Your task to perform on an android device: Search for Mexican restaurants on Maps Image 0: 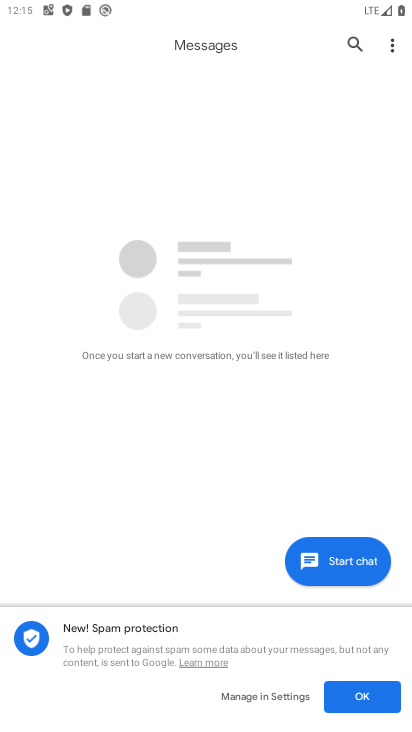
Step 0: press home button
Your task to perform on an android device: Search for Mexican restaurants on Maps Image 1: 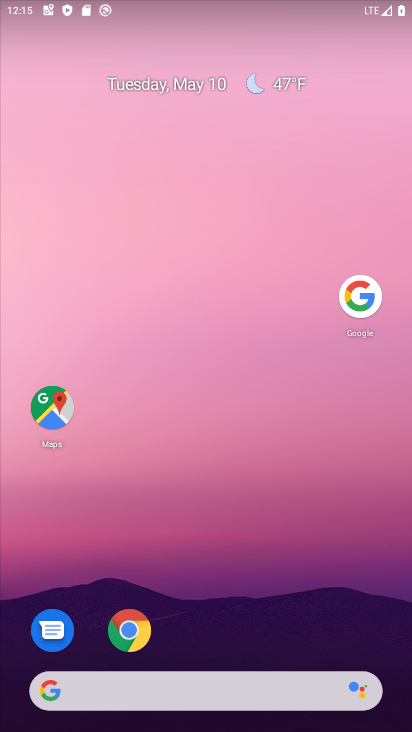
Step 1: drag from (203, 640) to (280, 75)
Your task to perform on an android device: Search for Mexican restaurants on Maps Image 2: 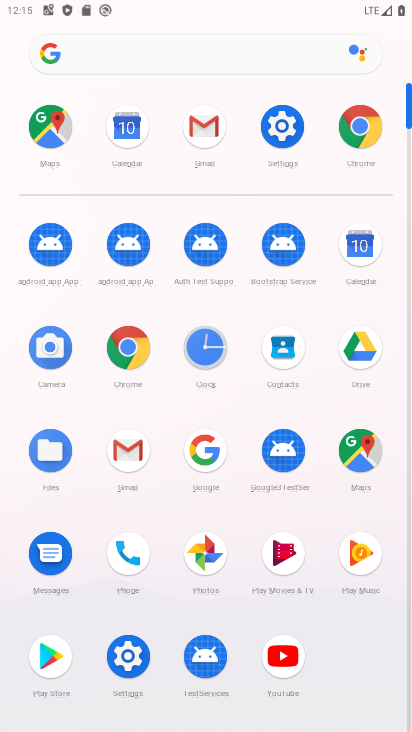
Step 2: click (47, 141)
Your task to perform on an android device: Search for Mexican restaurants on Maps Image 3: 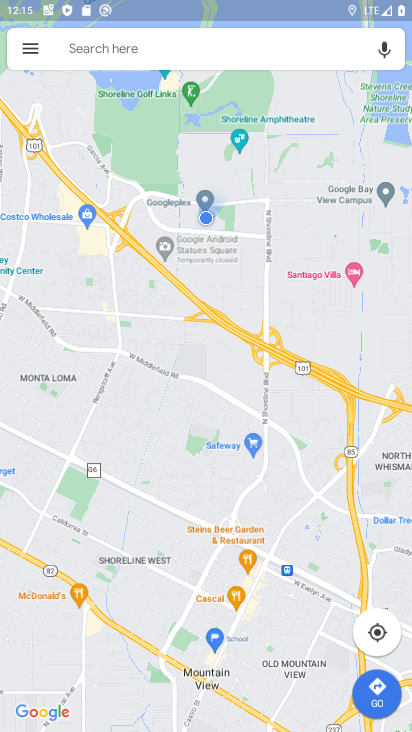
Step 3: click (145, 45)
Your task to perform on an android device: Search for Mexican restaurants on Maps Image 4: 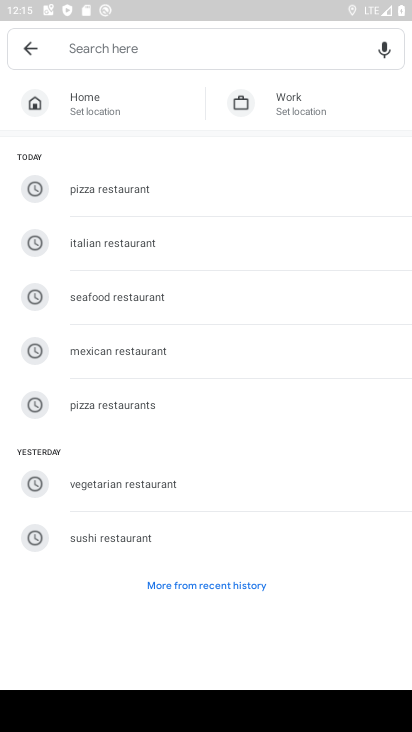
Step 4: click (140, 355)
Your task to perform on an android device: Search for Mexican restaurants on Maps Image 5: 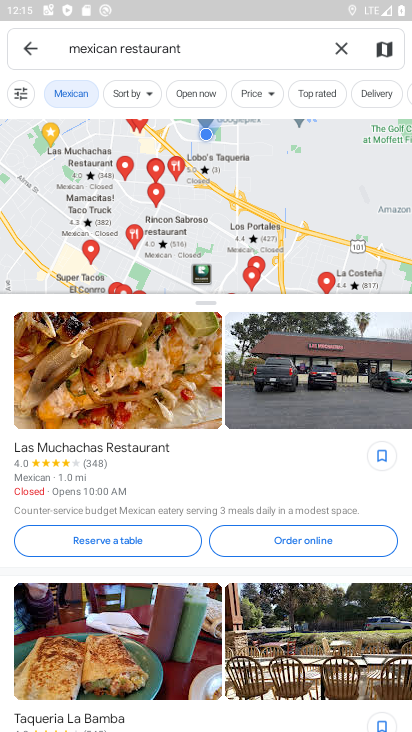
Step 5: task complete